Your task to perform on an android device: set default search engine in the chrome app Image 0: 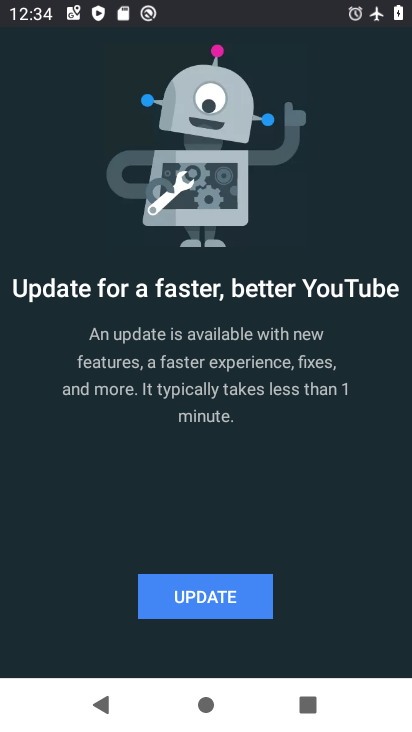
Step 0: press home button
Your task to perform on an android device: set default search engine in the chrome app Image 1: 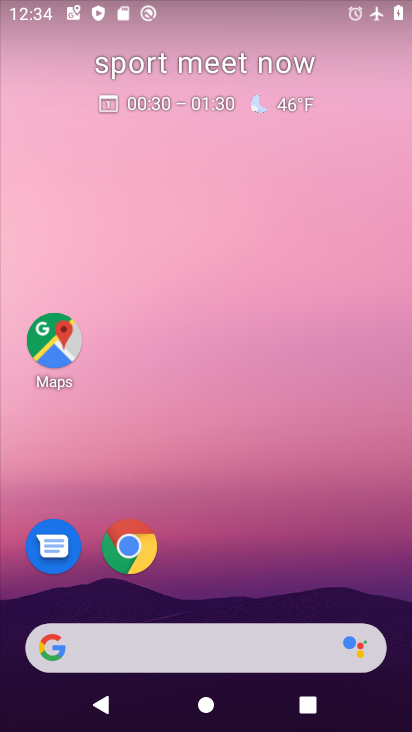
Step 1: click (141, 544)
Your task to perform on an android device: set default search engine in the chrome app Image 2: 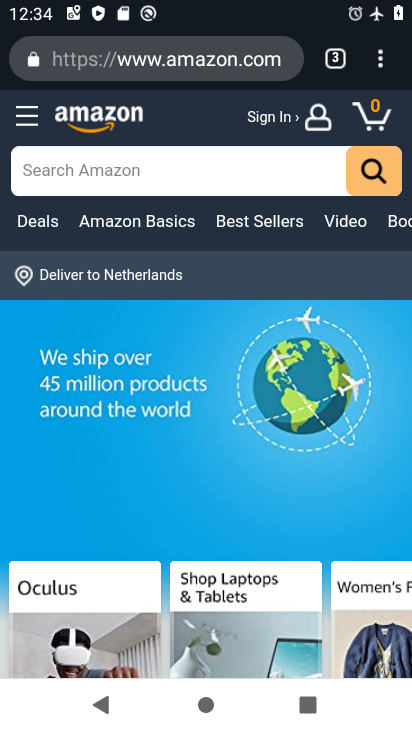
Step 2: drag from (382, 60) to (187, 579)
Your task to perform on an android device: set default search engine in the chrome app Image 3: 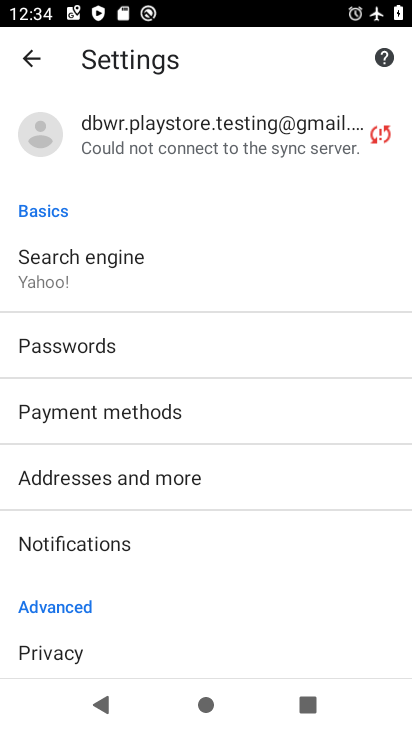
Step 3: click (63, 274)
Your task to perform on an android device: set default search engine in the chrome app Image 4: 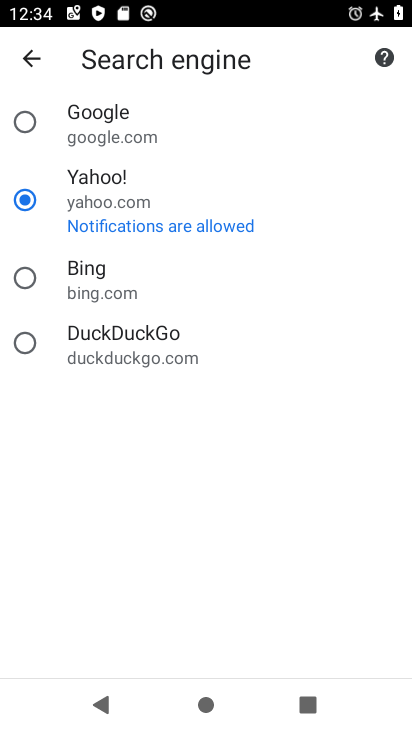
Step 4: click (27, 281)
Your task to perform on an android device: set default search engine in the chrome app Image 5: 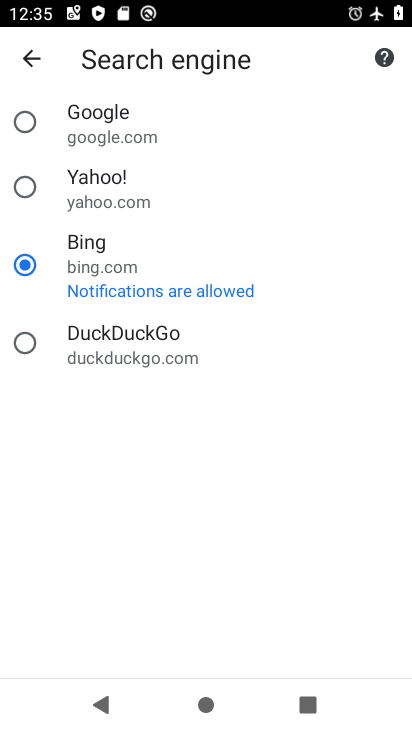
Step 5: task complete